Your task to perform on an android device: add a contact in the contacts app Image 0: 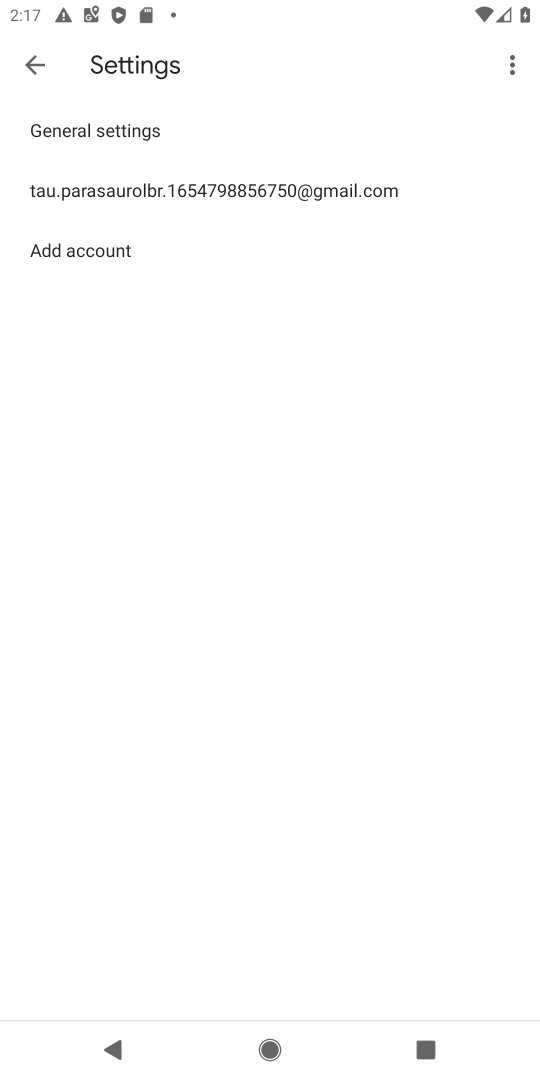
Step 0: press back button
Your task to perform on an android device: add a contact in the contacts app Image 1: 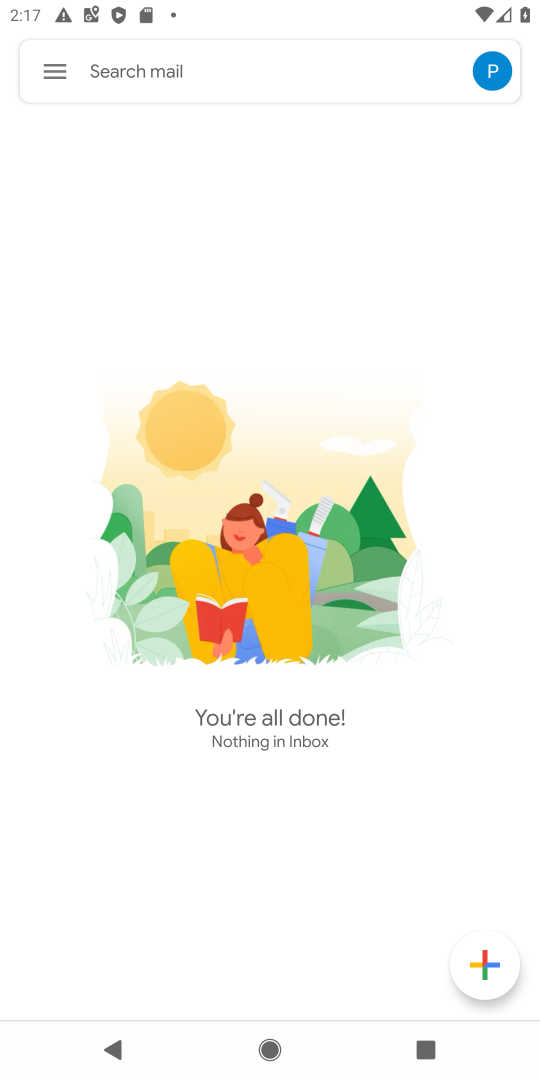
Step 1: press back button
Your task to perform on an android device: add a contact in the contacts app Image 2: 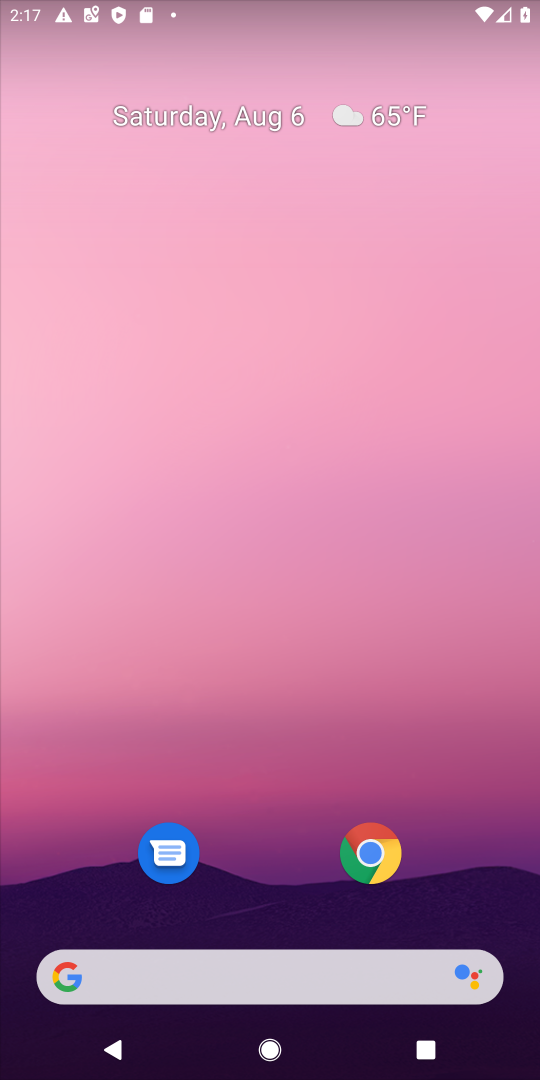
Step 2: drag from (263, 942) to (361, 12)
Your task to perform on an android device: add a contact in the contacts app Image 3: 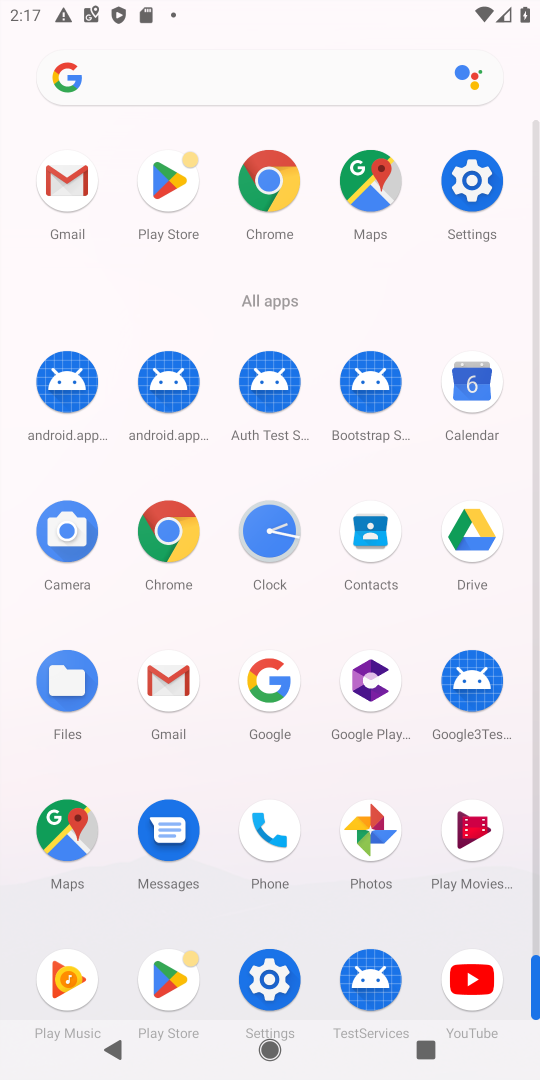
Step 3: click (367, 528)
Your task to perform on an android device: add a contact in the contacts app Image 4: 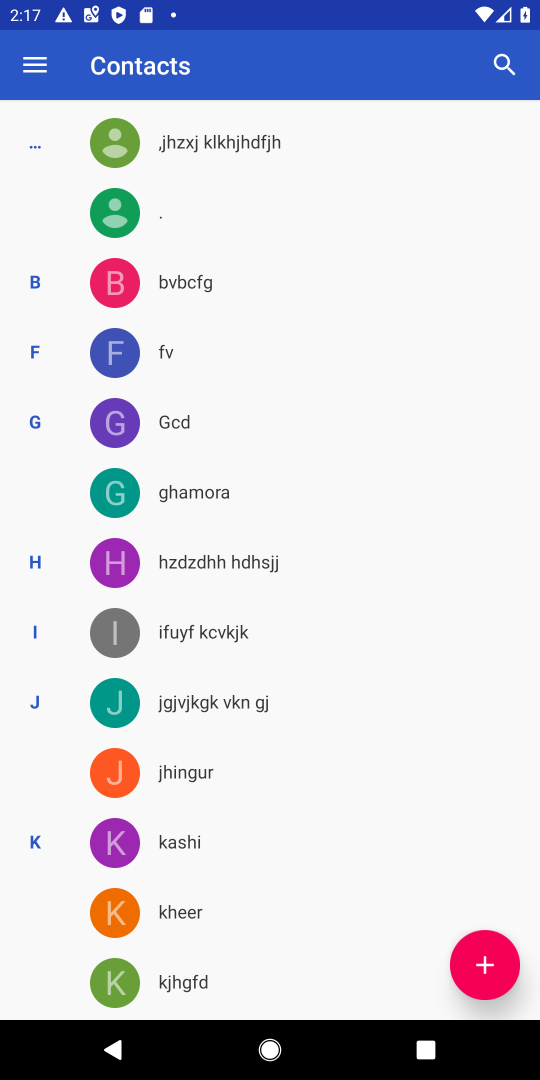
Step 4: click (502, 959)
Your task to perform on an android device: add a contact in the contacts app Image 5: 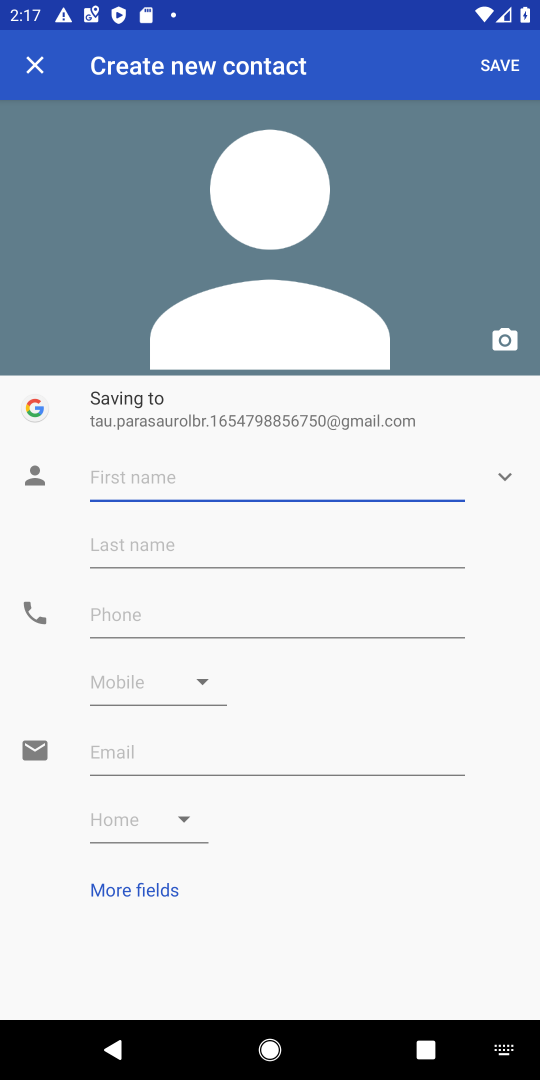
Step 5: click (145, 475)
Your task to perform on an android device: add a contact in the contacts app Image 6: 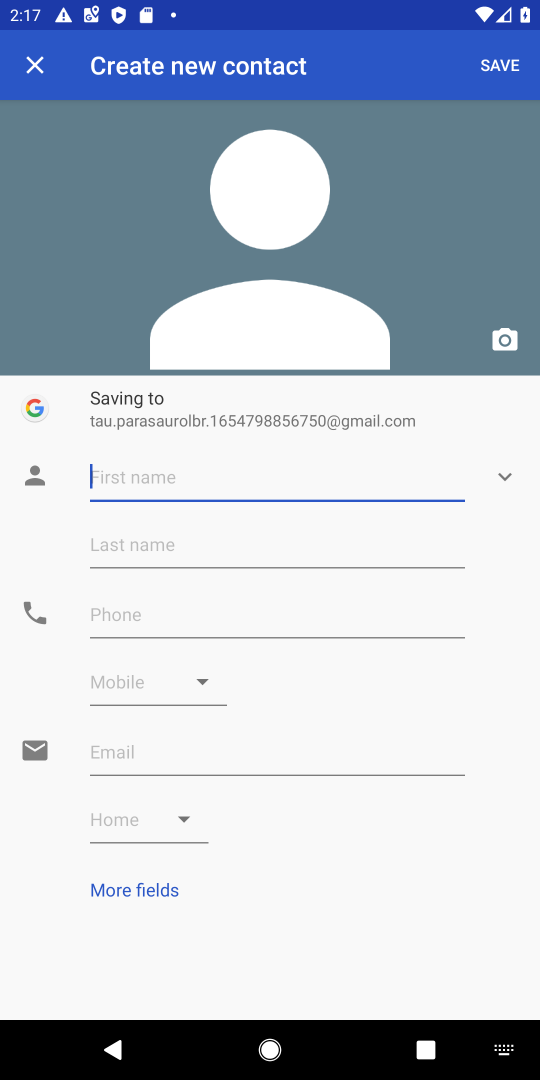
Step 6: type "vffvv"
Your task to perform on an android device: add a contact in the contacts app Image 7: 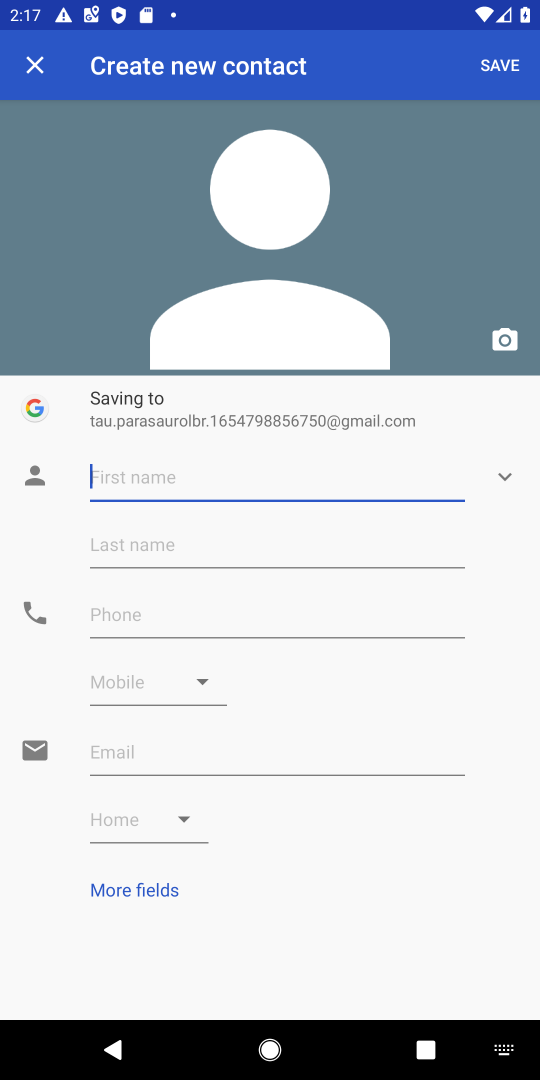
Step 7: click (186, 479)
Your task to perform on an android device: add a contact in the contacts app Image 8: 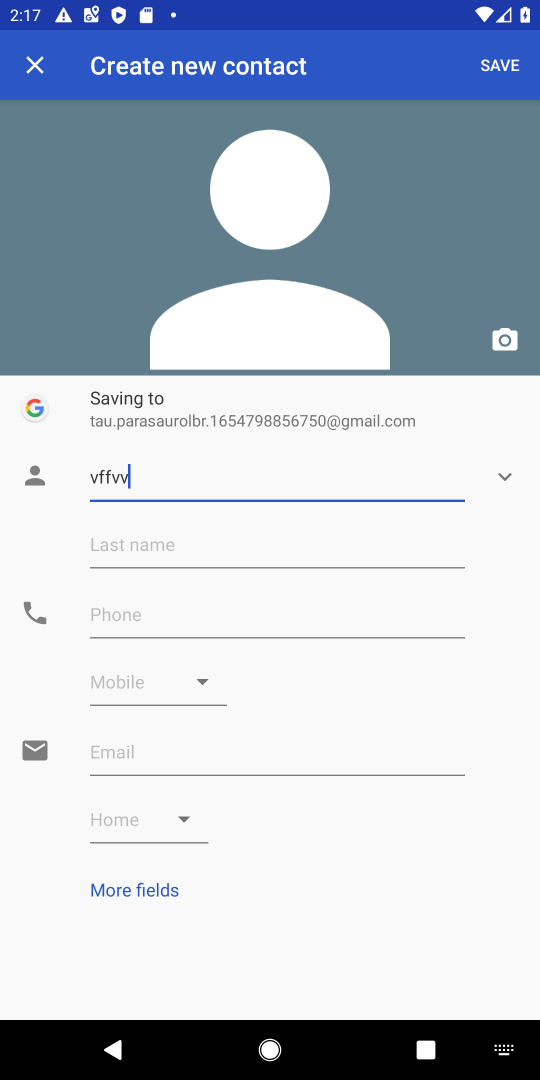
Step 8: click (93, 602)
Your task to perform on an android device: add a contact in the contacts app Image 9: 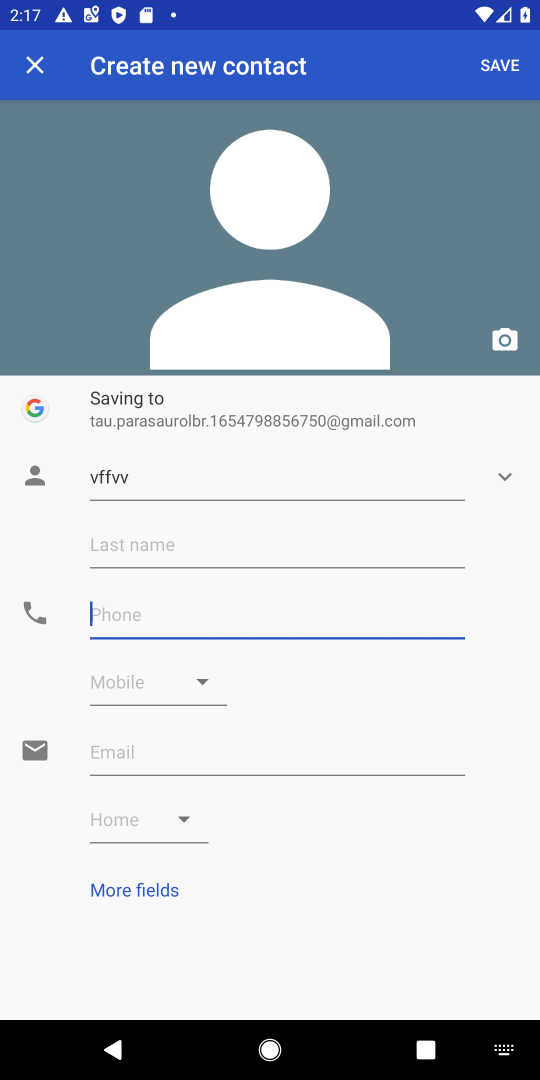
Step 9: type "45454"
Your task to perform on an android device: add a contact in the contacts app Image 10: 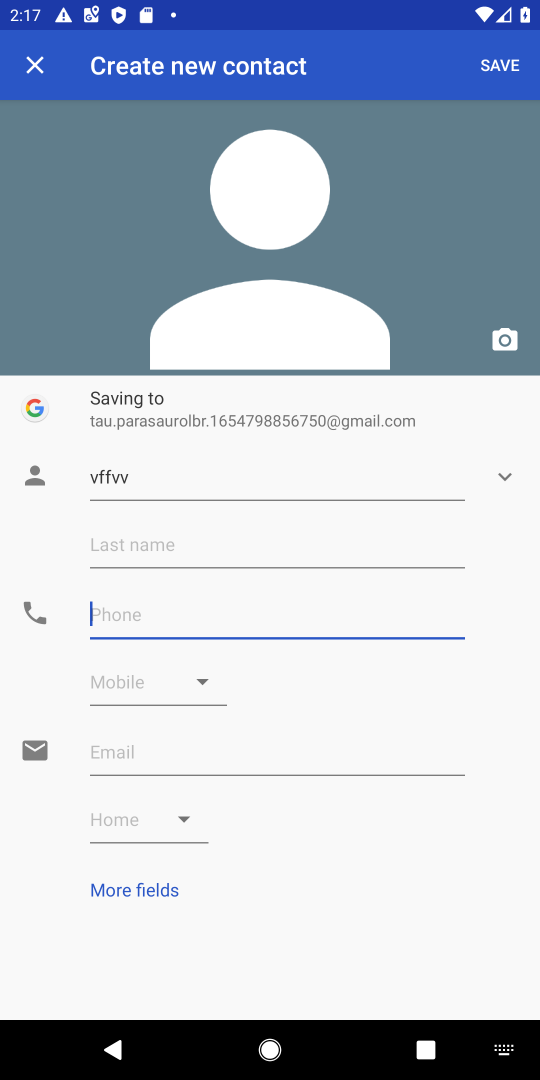
Step 10: click (246, 532)
Your task to perform on an android device: add a contact in the contacts app Image 11: 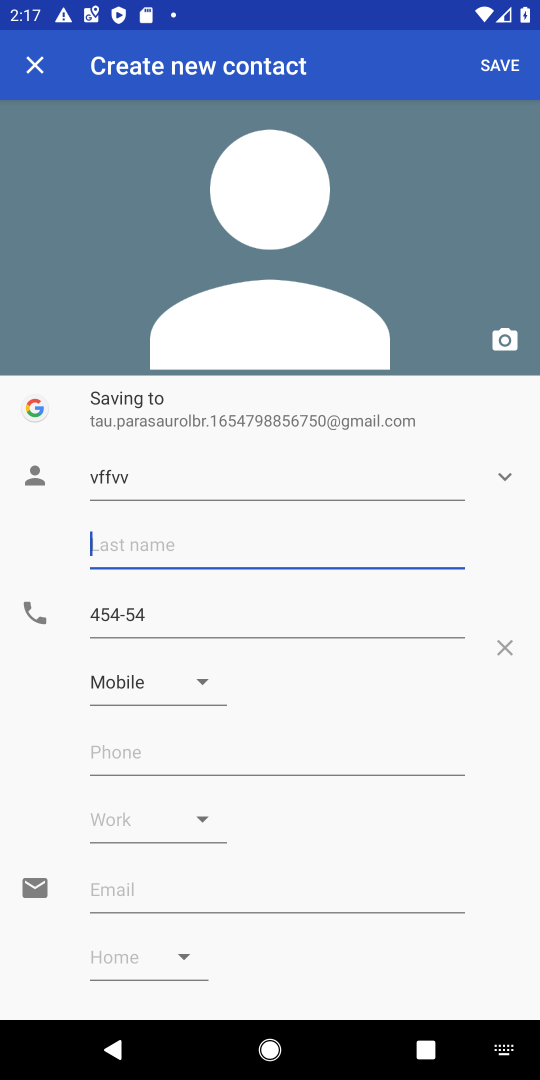
Step 11: click (496, 68)
Your task to perform on an android device: add a contact in the contacts app Image 12: 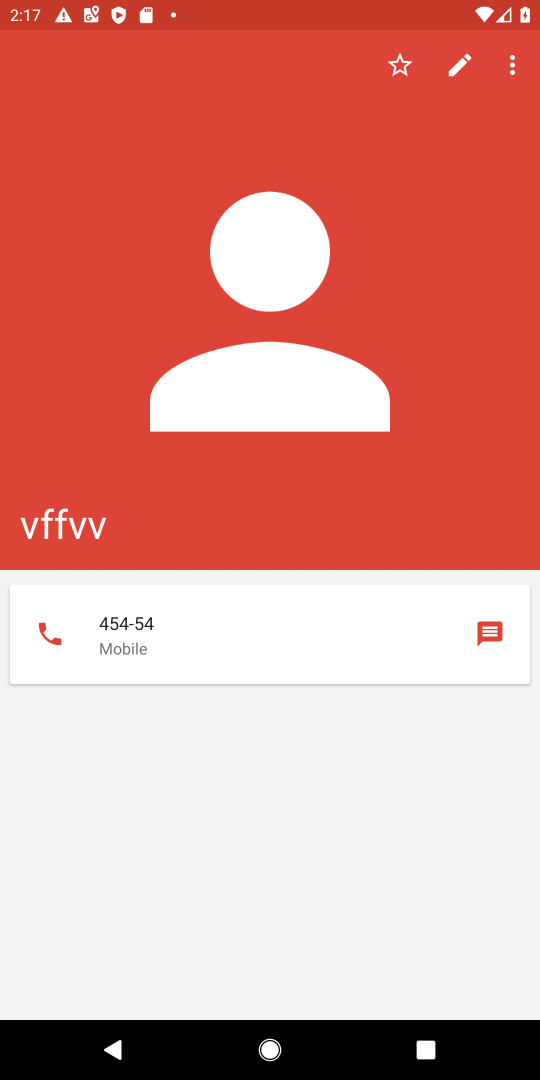
Step 12: task complete